Your task to perform on an android device: clear all cookies in the chrome app Image 0: 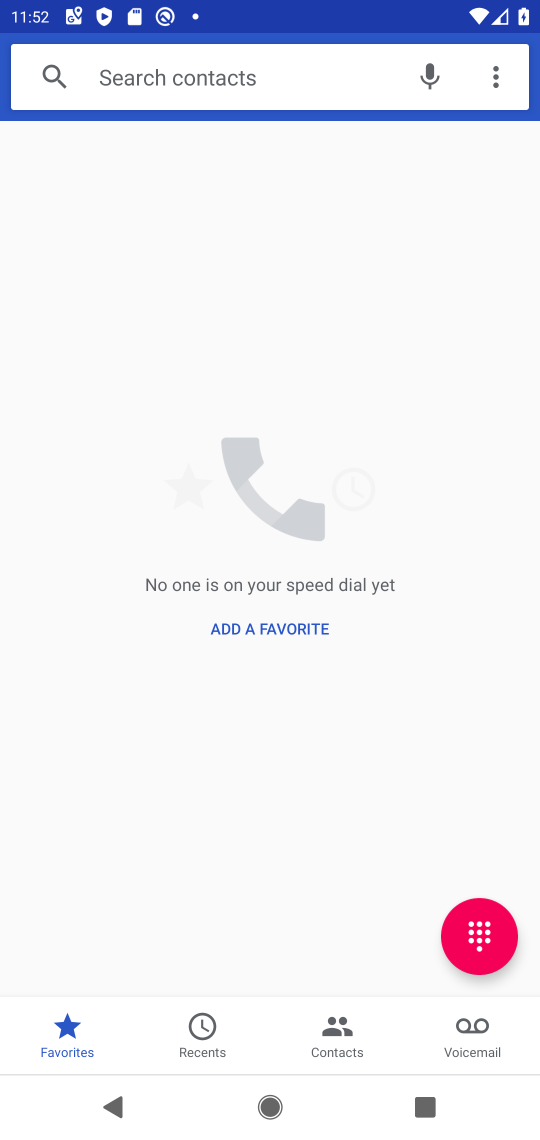
Step 0: press home button
Your task to perform on an android device: clear all cookies in the chrome app Image 1: 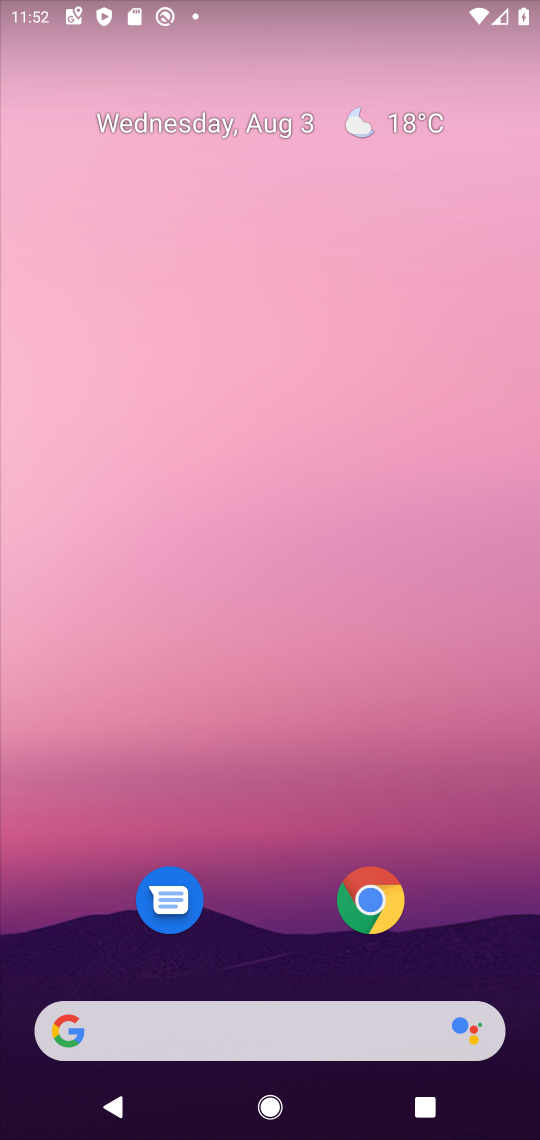
Step 1: click (360, 918)
Your task to perform on an android device: clear all cookies in the chrome app Image 2: 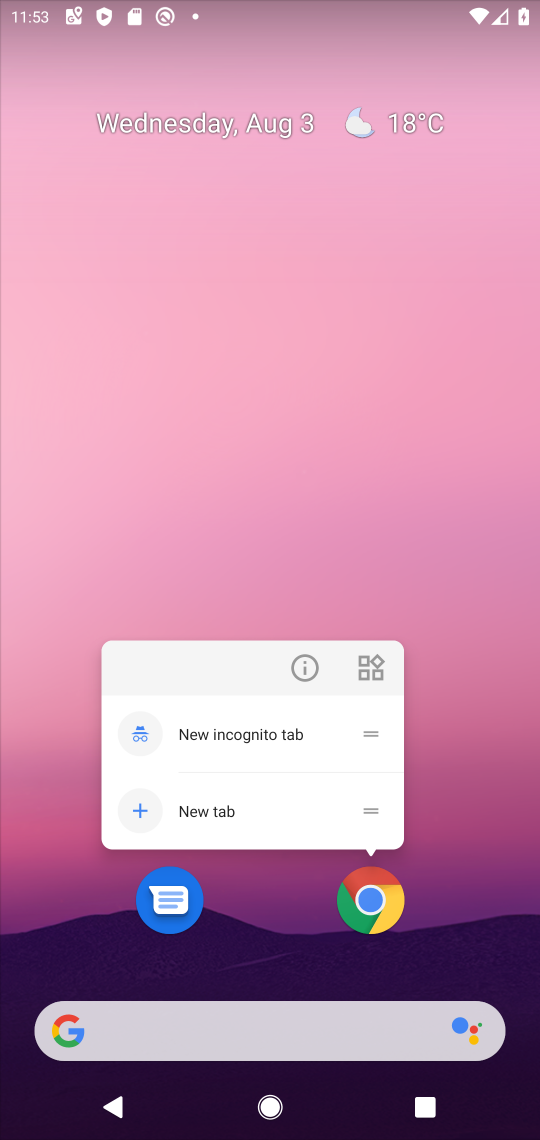
Step 2: press home button
Your task to perform on an android device: clear all cookies in the chrome app Image 3: 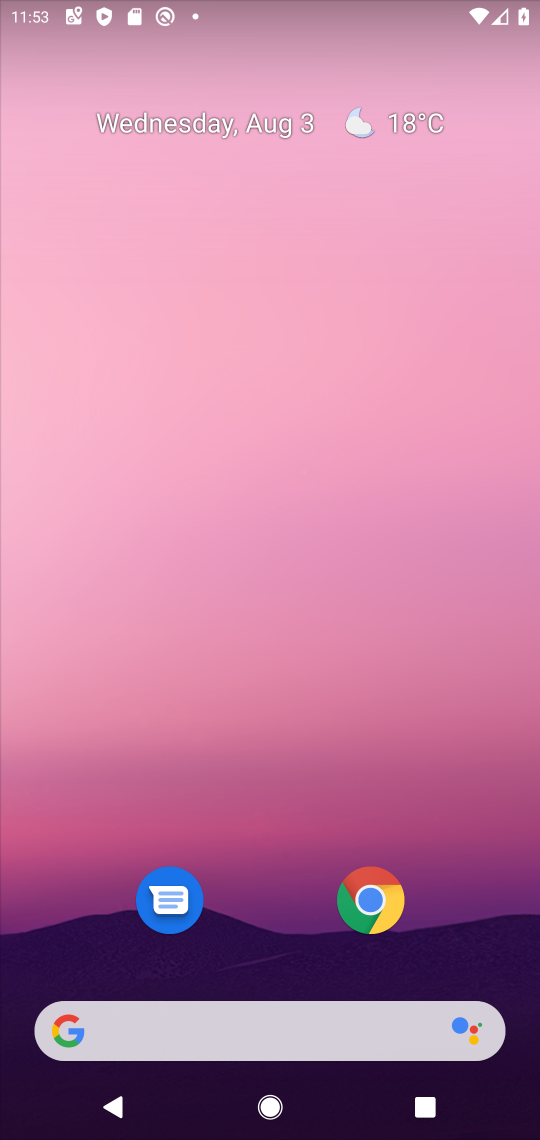
Step 3: click (362, 901)
Your task to perform on an android device: clear all cookies in the chrome app Image 4: 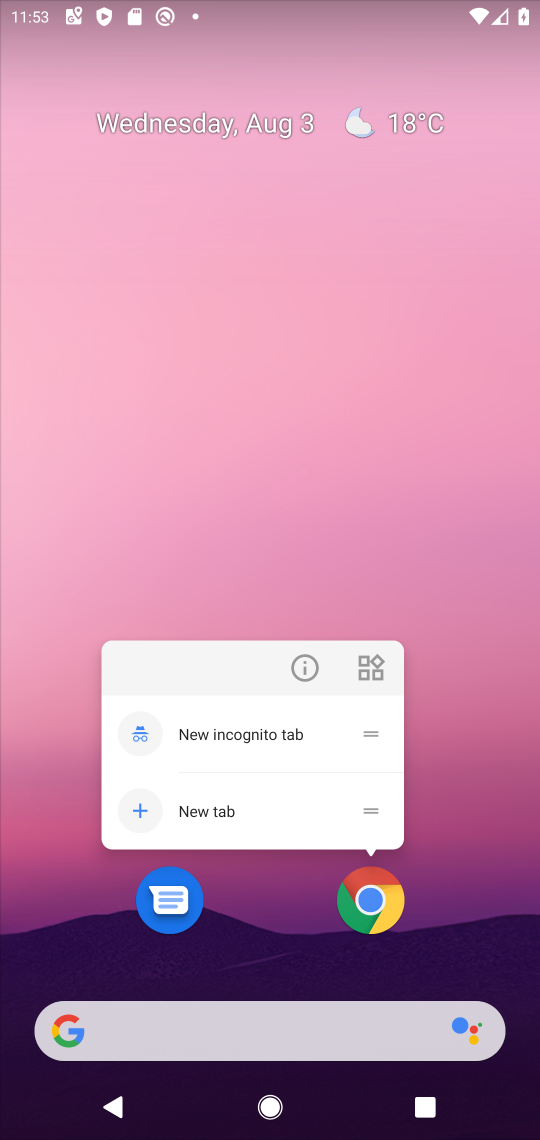
Step 4: click (363, 902)
Your task to perform on an android device: clear all cookies in the chrome app Image 5: 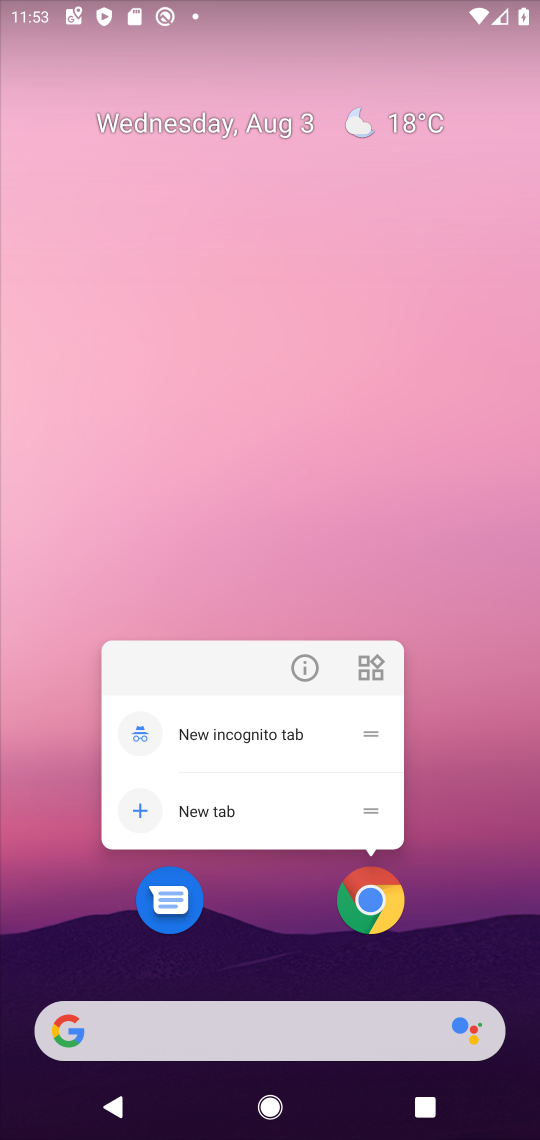
Step 5: click (381, 912)
Your task to perform on an android device: clear all cookies in the chrome app Image 6: 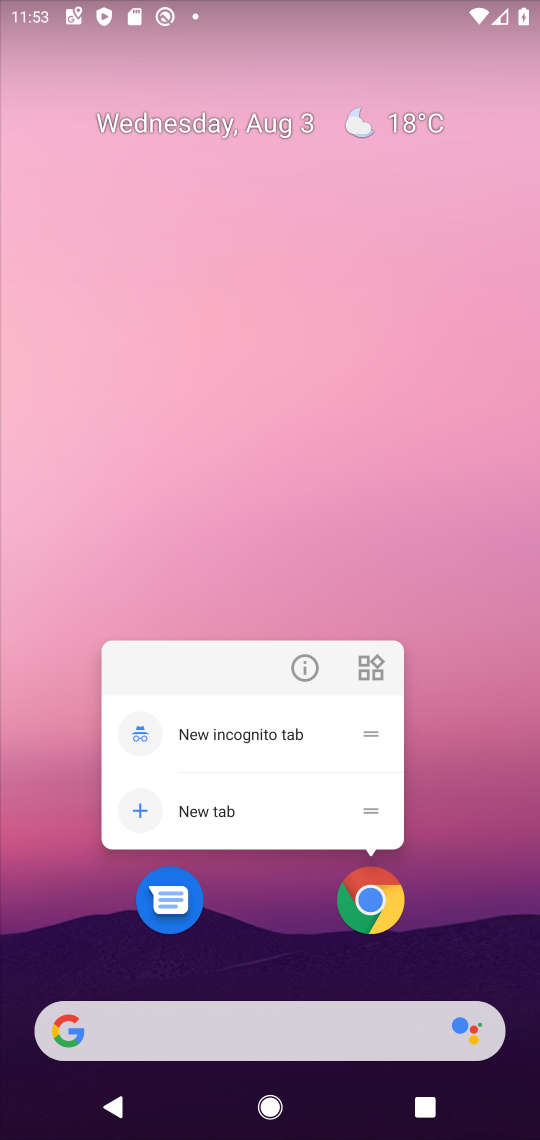
Step 6: click (381, 911)
Your task to perform on an android device: clear all cookies in the chrome app Image 7: 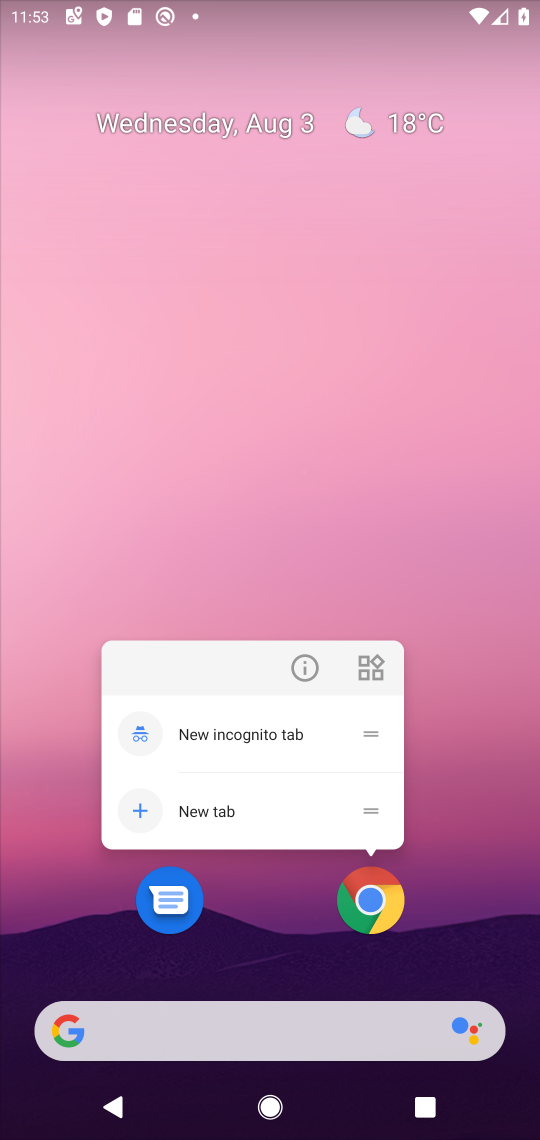
Step 7: click (356, 905)
Your task to perform on an android device: clear all cookies in the chrome app Image 8: 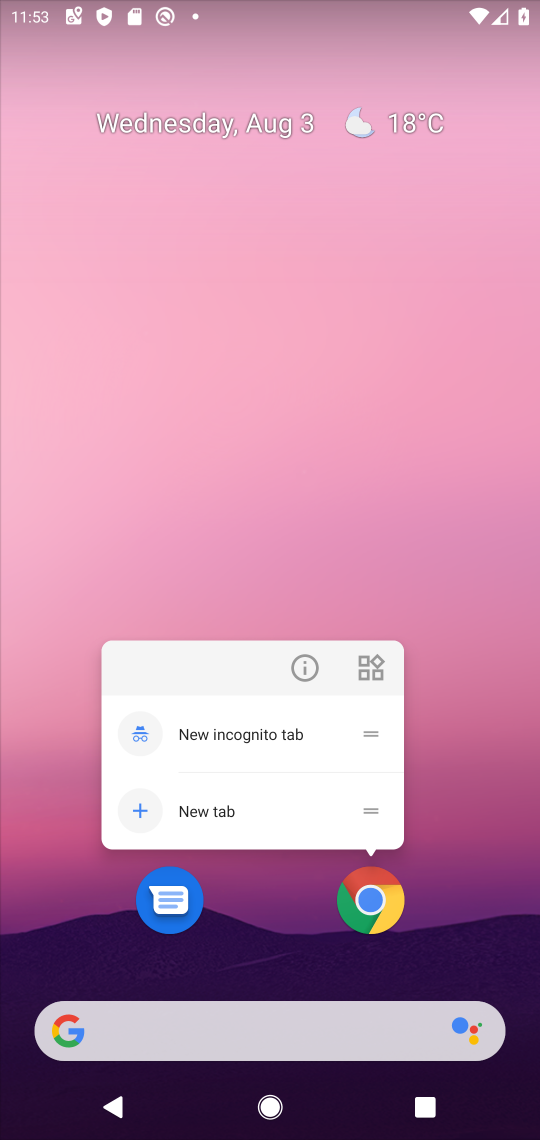
Step 8: click (356, 905)
Your task to perform on an android device: clear all cookies in the chrome app Image 9: 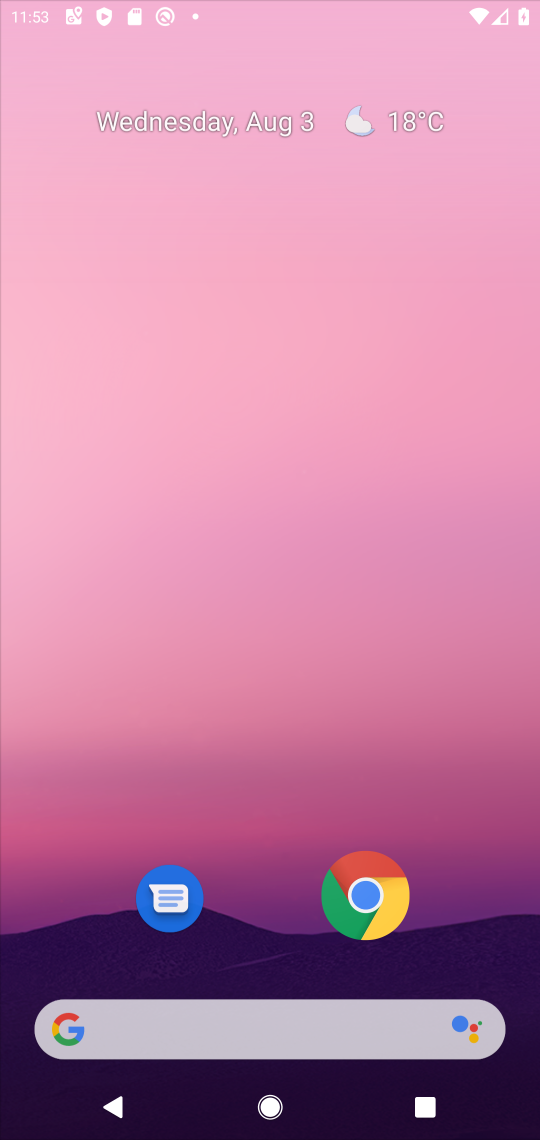
Step 9: click (375, 909)
Your task to perform on an android device: clear all cookies in the chrome app Image 10: 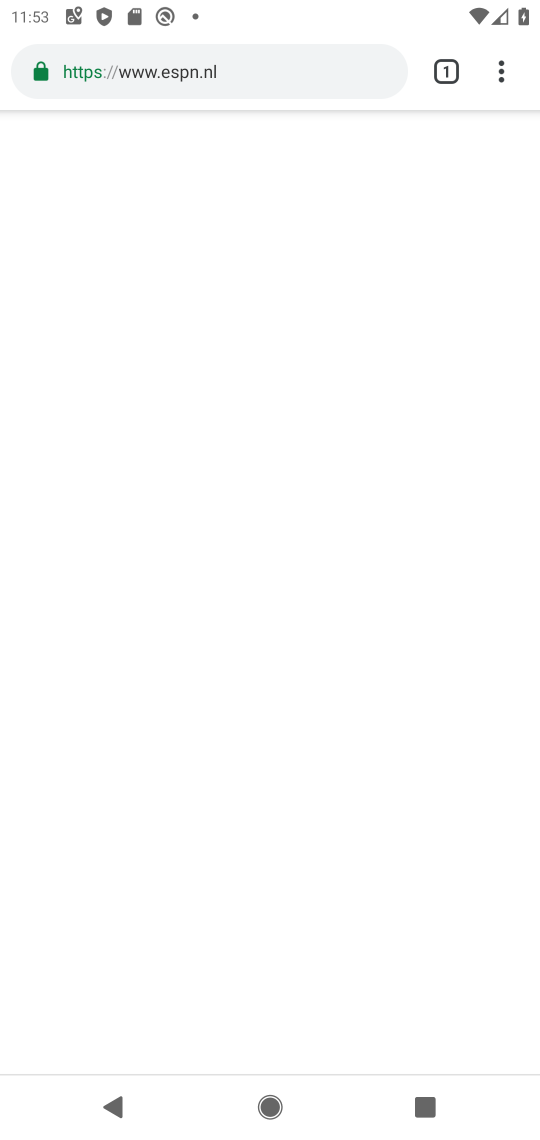
Step 10: press back button
Your task to perform on an android device: clear all cookies in the chrome app Image 11: 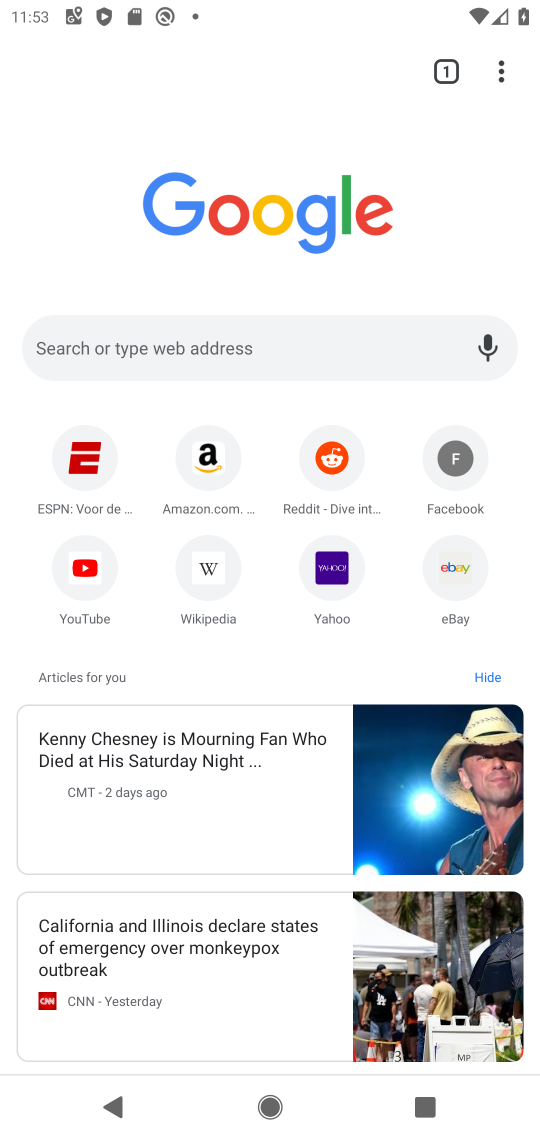
Step 11: click (488, 63)
Your task to perform on an android device: clear all cookies in the chrome app Image 12: 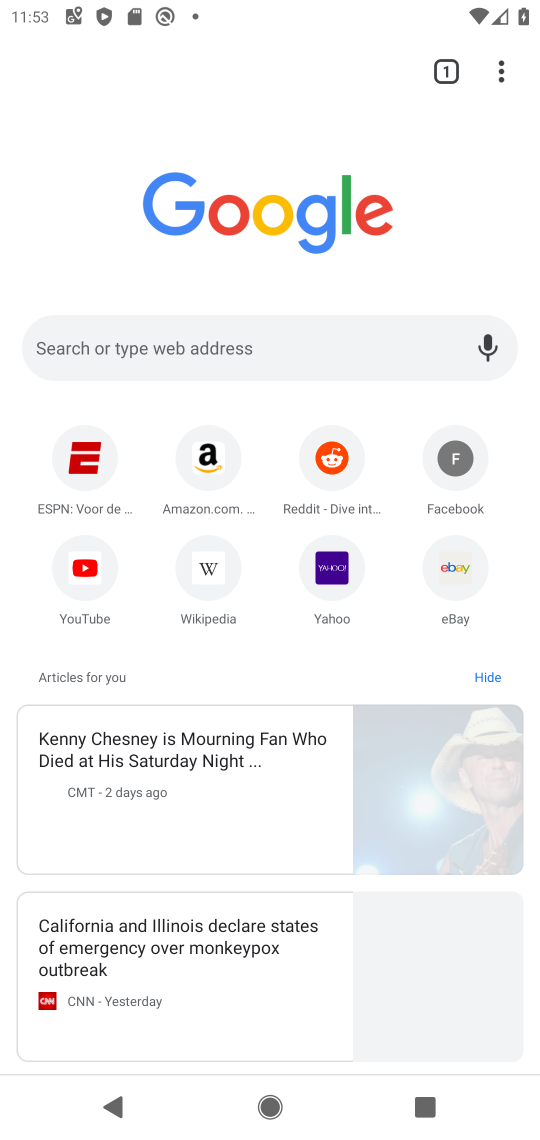
Step 12: drag from (498, 70) to (236, 597)
Your task to perform on an android device: clear all cookies in the chrome app Image 13: 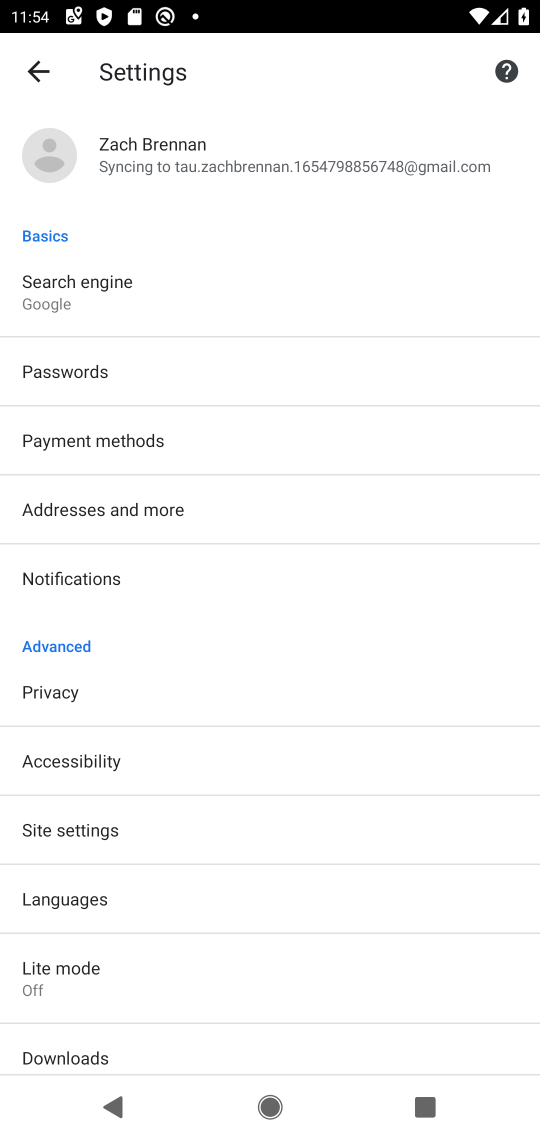
Step 13: click (148, 837)
Your task to perform on an android device: clear all cookies in the chrome app Image 14: 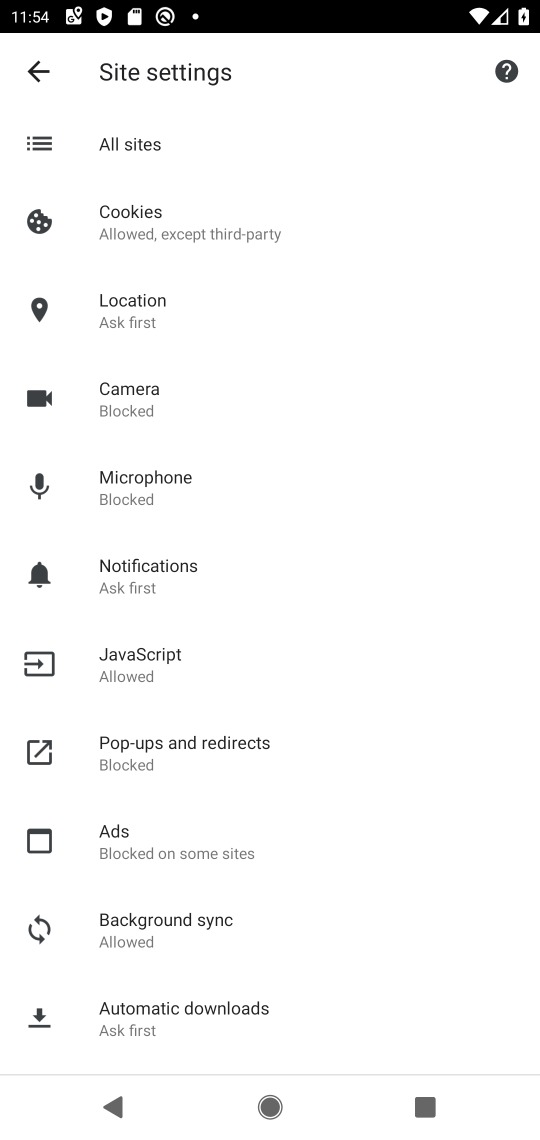
Step 14: click (128, 204)
Your task to perform on an android device: clear all cookies in the chrome app Image 15: 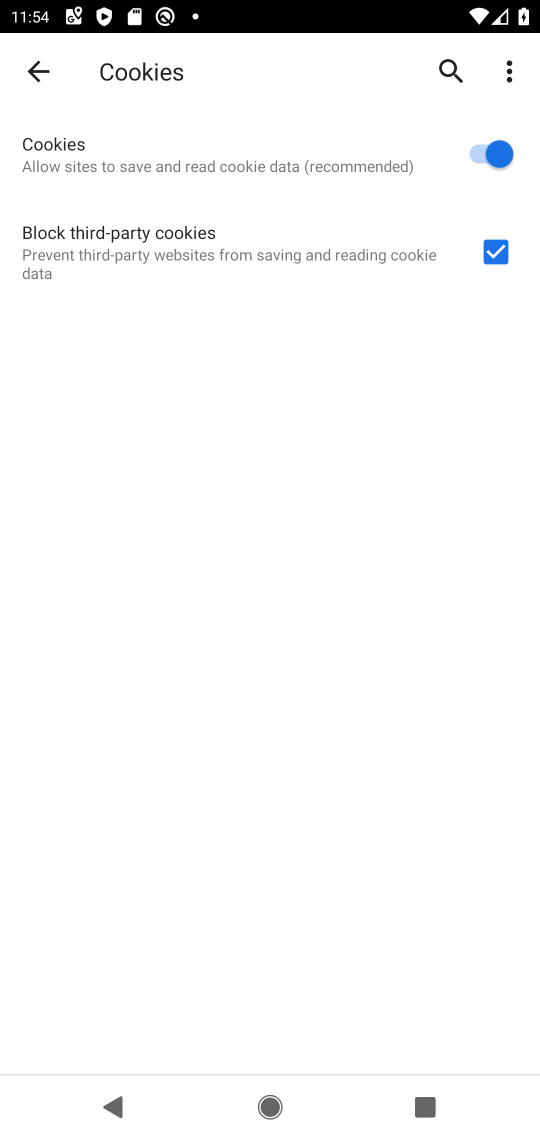
Step 15: click (30, 64)
Your task to perform on an android device: clear all cookies in the chrome app Image 16: 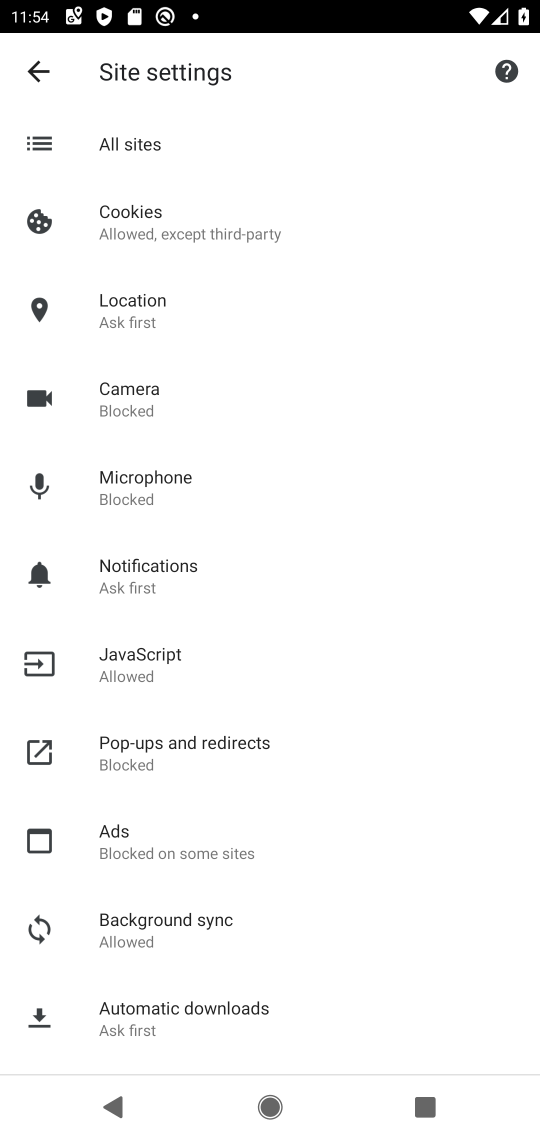
Step 16: drag from (204, 269) to (165, 172)
Your task to perform on an android device: clear all cookies in the chrome app Image 17: 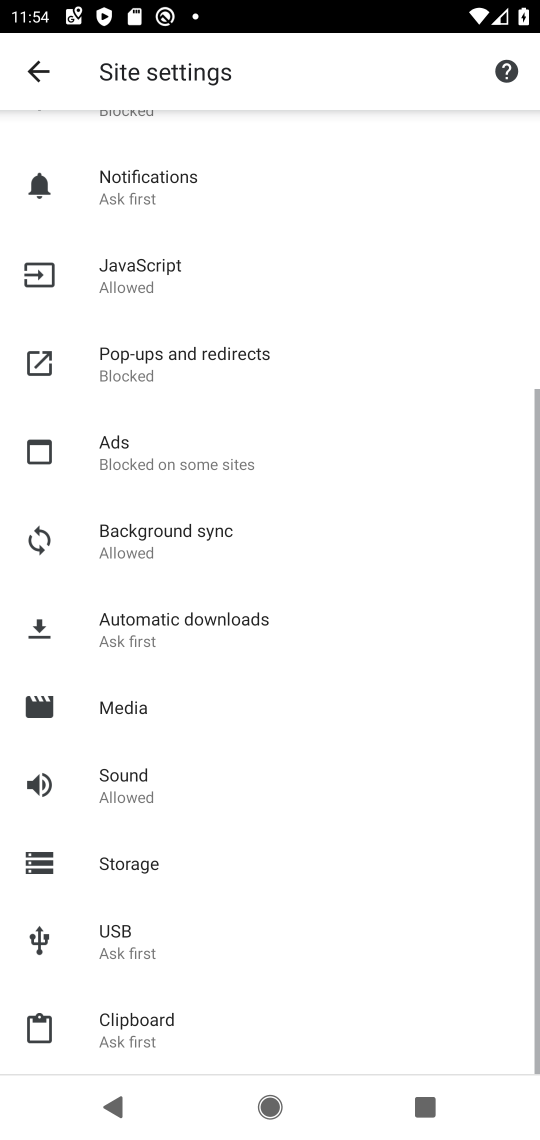
Step 17: drag from (213, 947) to (193, 165)
Your task to perform on an android device: clear all cookies in the chrome app Image 18: 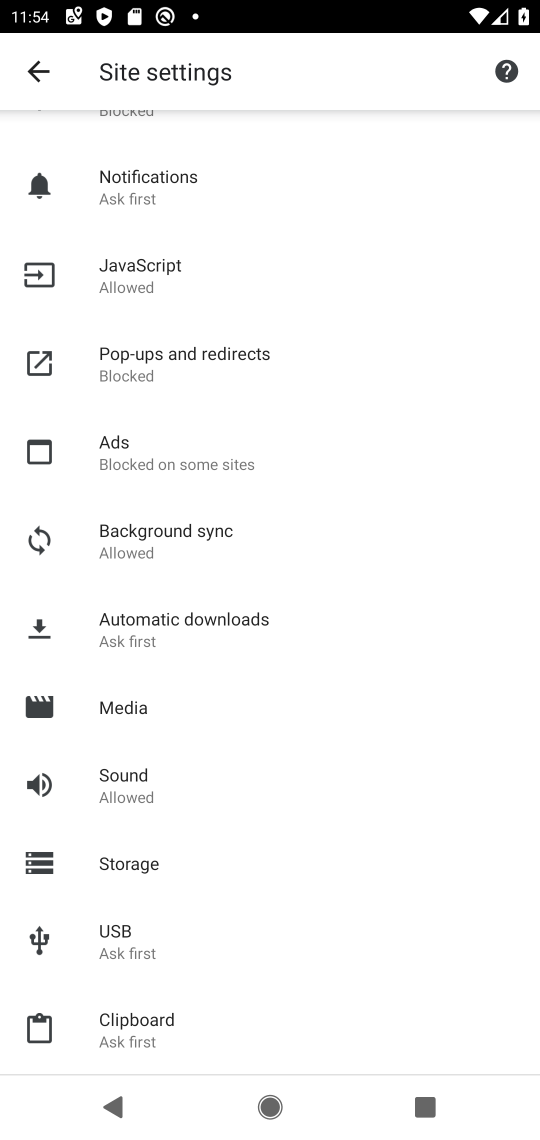
Step 18: click (26, 72)
Your task to perform on an android device: clear all cookies in the chrome app Image 19: 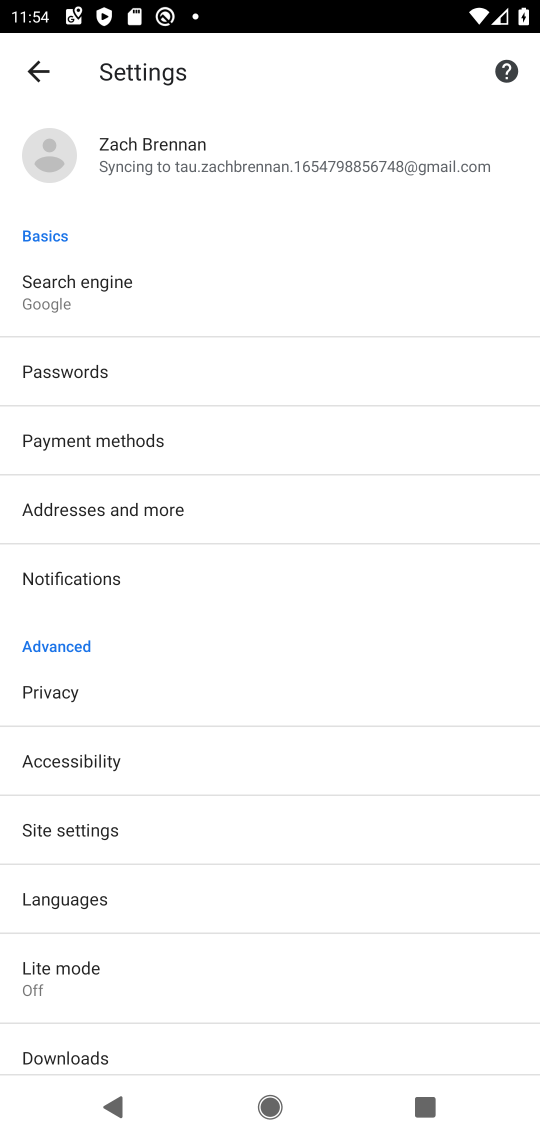
Step 19: drag from (162, 658) to (160, 515)
Your task to perform on an android device: clear all cookies in the chrome app Image 20: 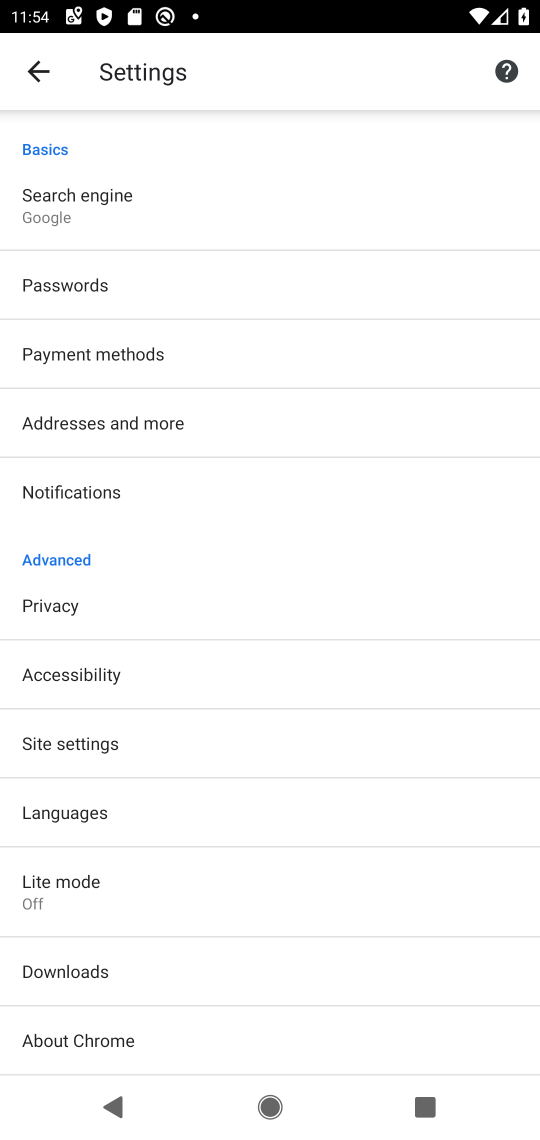
Step 20: click (70, 602)
Your task to perform on an android device: clear all cookies in the chrome app Image 21: 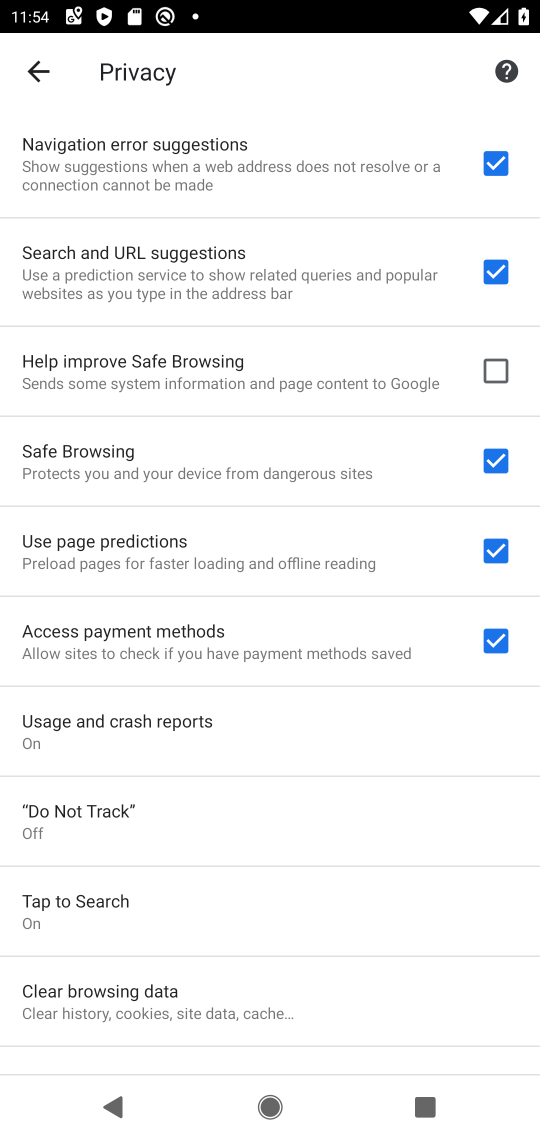
Step 21: click (197, 1018)
Your task to perform on an android device: clear all cookies in the chrome app Image 22: 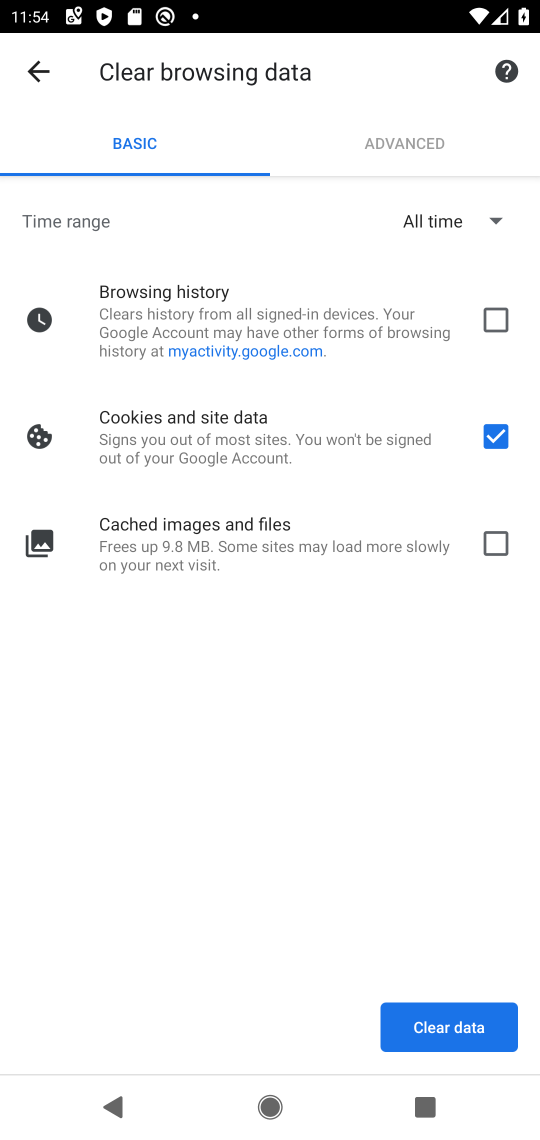
Step 22: click (472, 1023)
Your task to perform on an android device: clear all cookies in the chrome app Image 23: 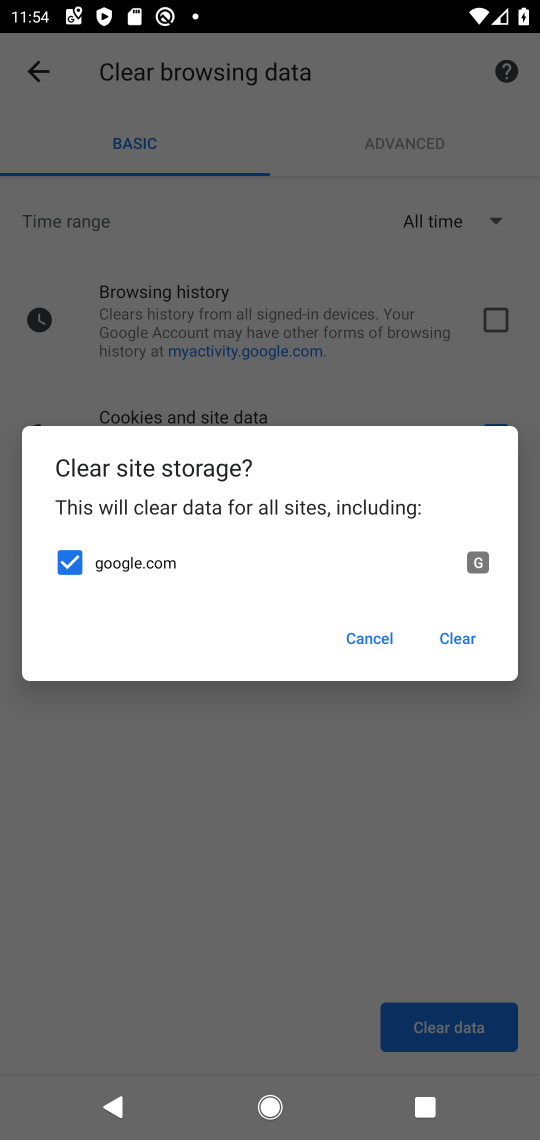
Step 23: click (468, 636)
Your task to perform on an android device: clear all cookies in the chrome app Image 24: 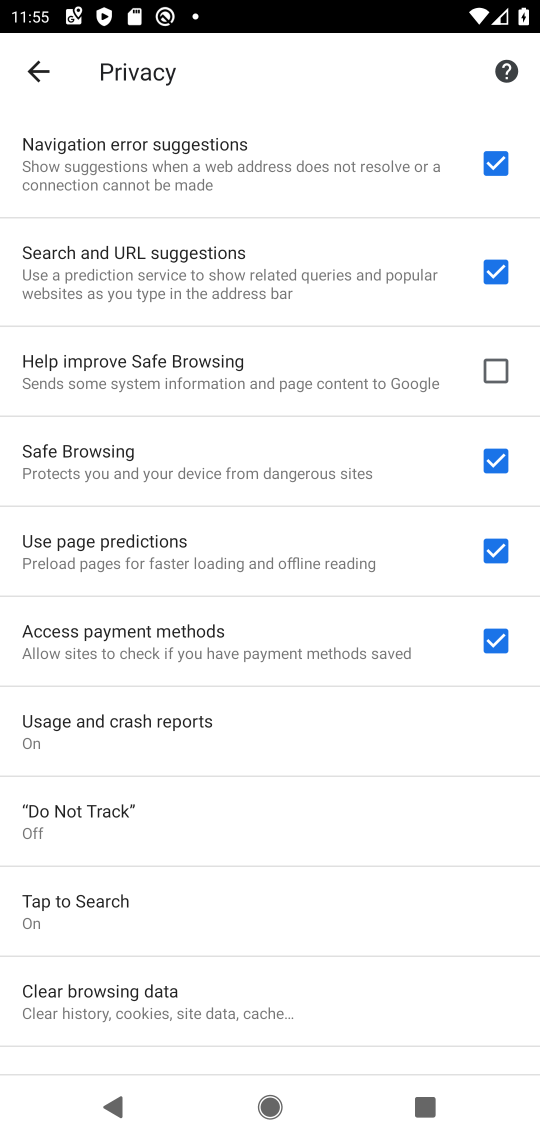
Step 24: task complete